Your task to perform on an android device: Open display settings Image 0: 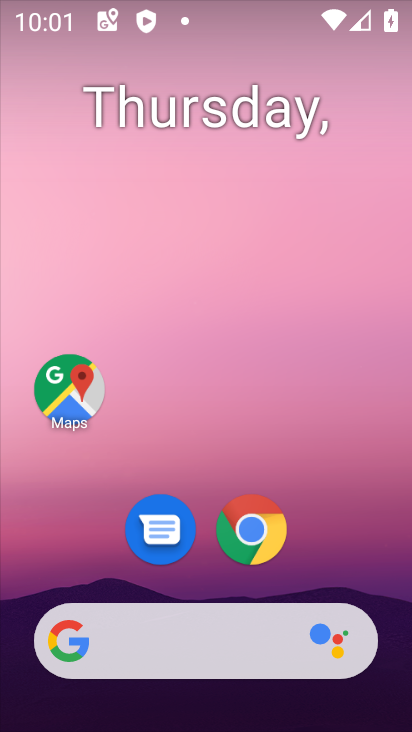
Step 0: drag from (329, 559) to (305, 71)
Your task to perform on an android device: Open display settings Image 1: 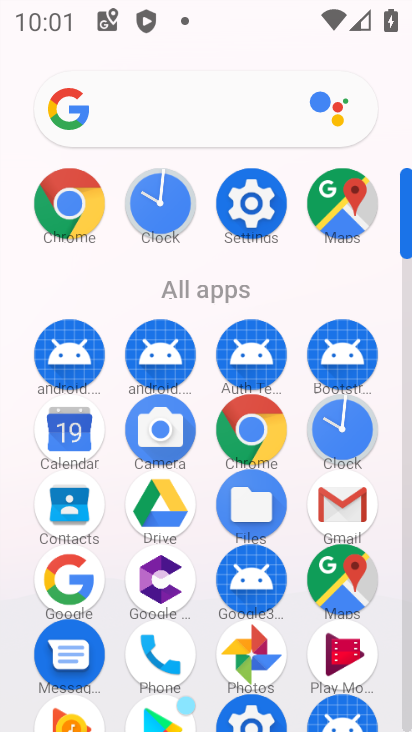
Step 1: click (253, 201)
Your task to perform on an android device: Open display settings Image 2: 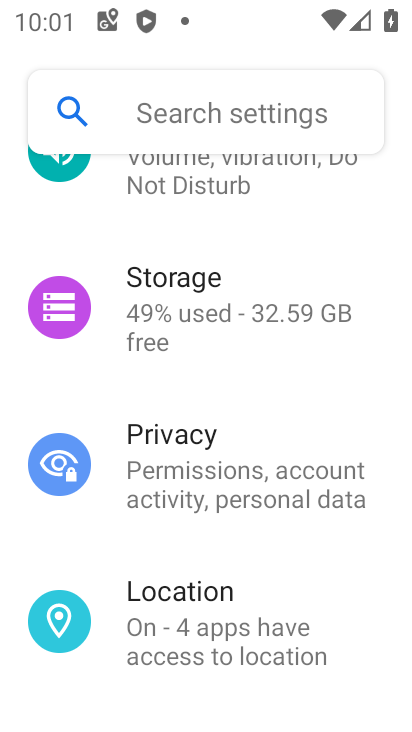
Step 2: drag from (284, 306) to (321, 443)
Your task to perform on an android device: Open display settings Image 3: 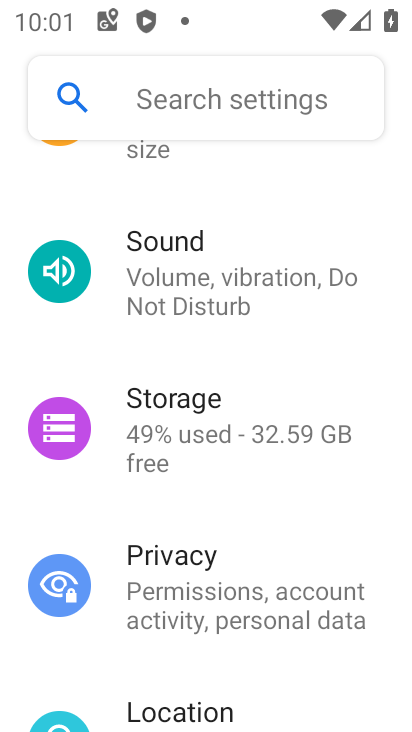
Step 3: drag from (279, 288) to (259, 443)
Your task to perform on an android device: Open display settings Image 4: 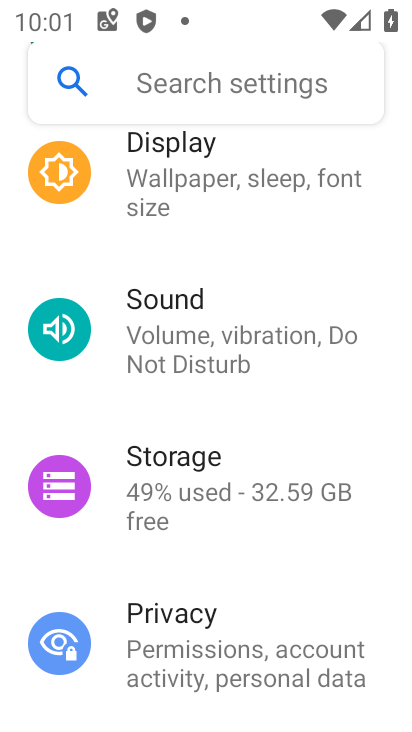
Step 4: drag from (248, 259) to (228, 346)
Your task to perform on an android device: Open display settings Image 5: 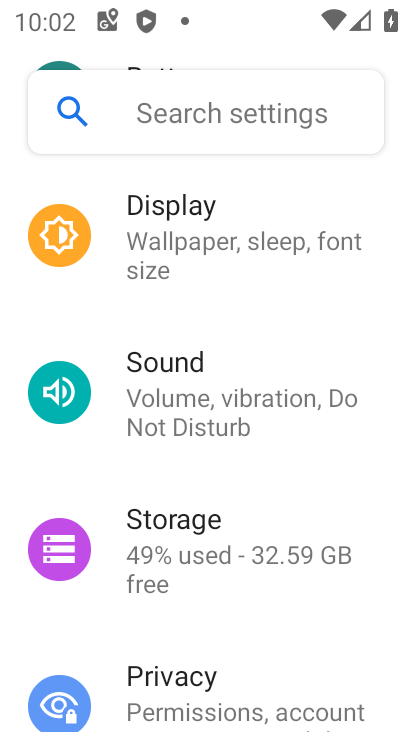
Step 5: drag from (169, 264) to (246, 529)
Your task to perform on an android device: Open display settings Image 6: 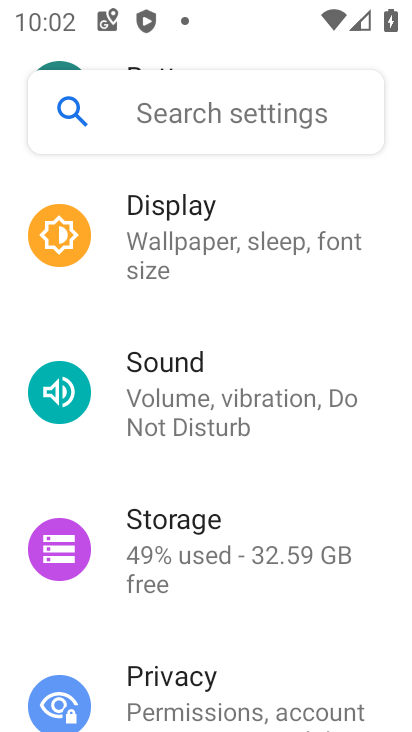
Step 6: click (176, 259)
Your task to perform on an android device: Open display settings Image 7: 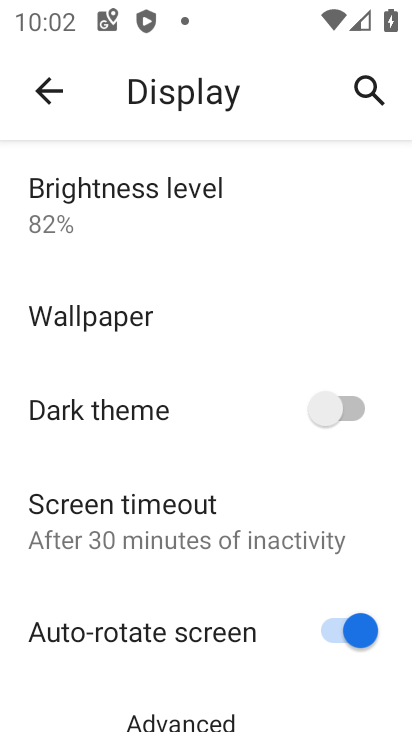
Step 7: task complete